Your task to perform on an android device: find which apps use the phone's location Image 0: 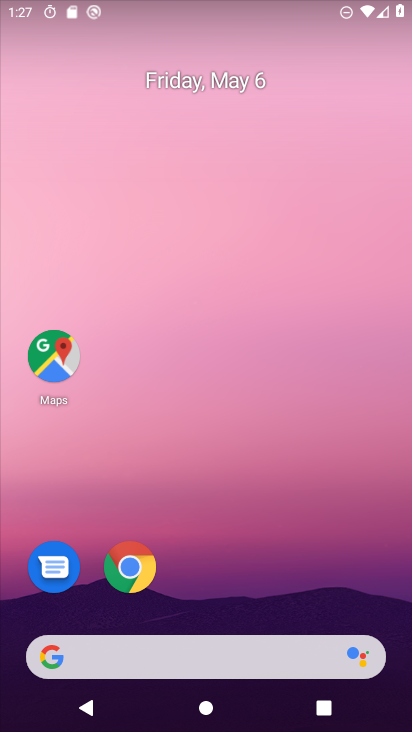
Step 0: drag from (332, 690) to (302, 177)
Your task to perform on an android device: find which apps use the phone's location Image 1: 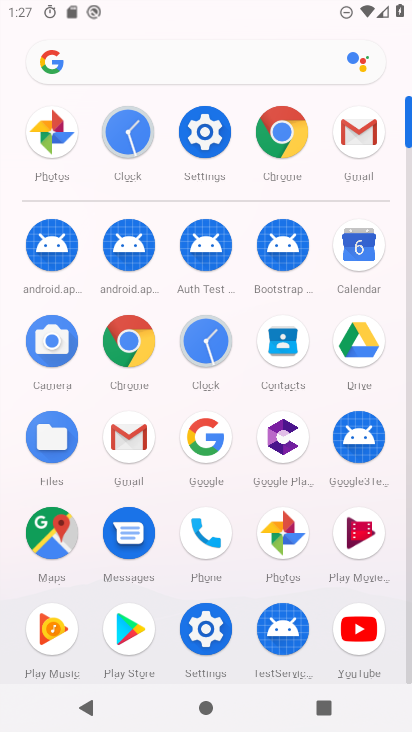
Step 1: click (193, 152)
Your task to perform on an android device: find which apps use the phone's location Image 2: 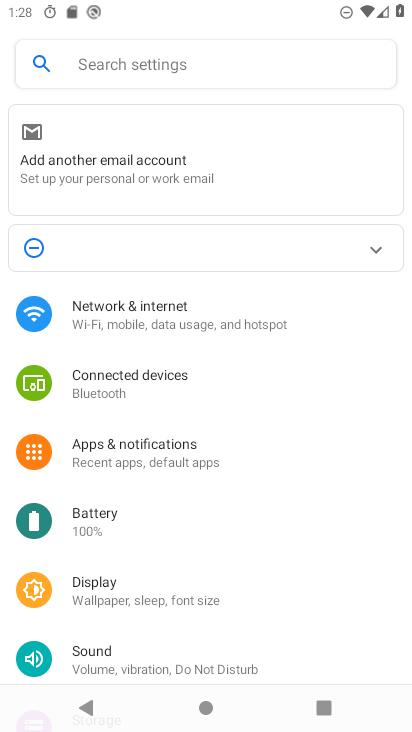
Step 2: click (152, 63)
Your task to perform on an android device: find which apps use the phone's location Image 3: 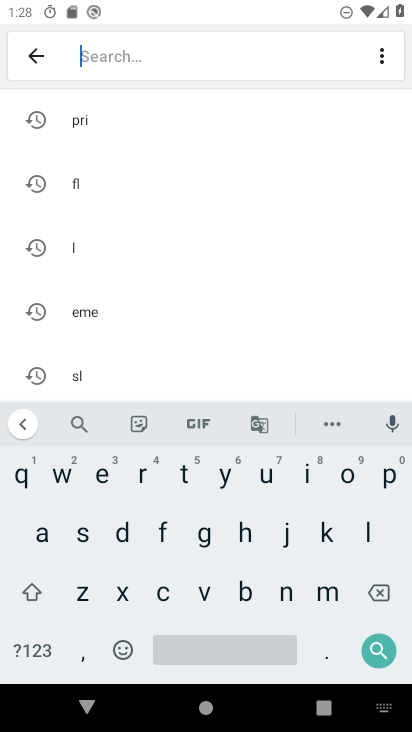
Step 3: click (370, 537)
Your task to perform on an android device: find which apps use the phone's location Image 4: 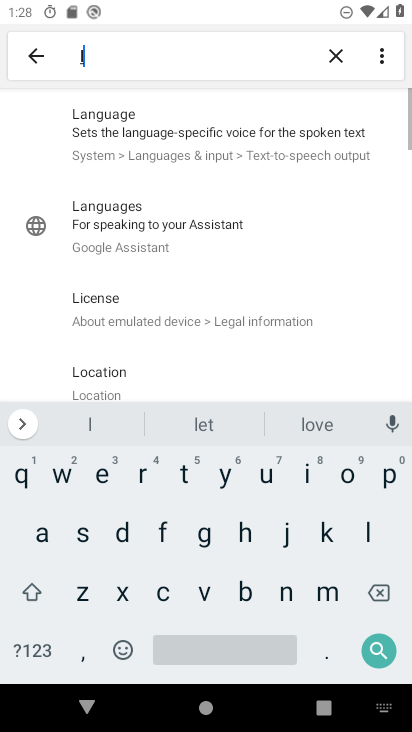
Step 4: click (342, 477)
Your task to perform on an android device: find which apps use the phone's location Image 5: 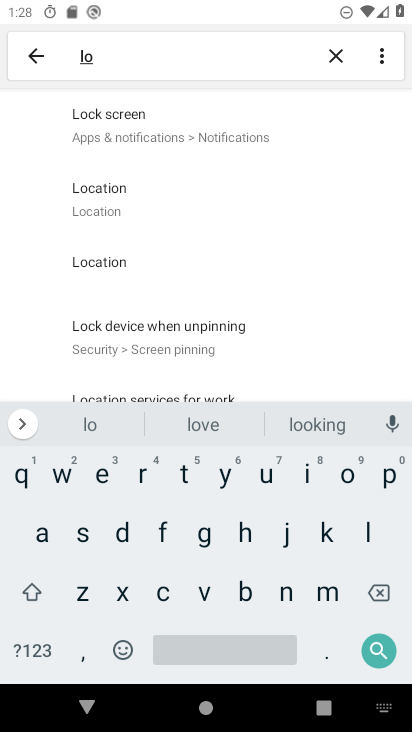
Step 5: click (160, 201)
Your task to perform on an android device: find which apps use the phone's location Image 6: 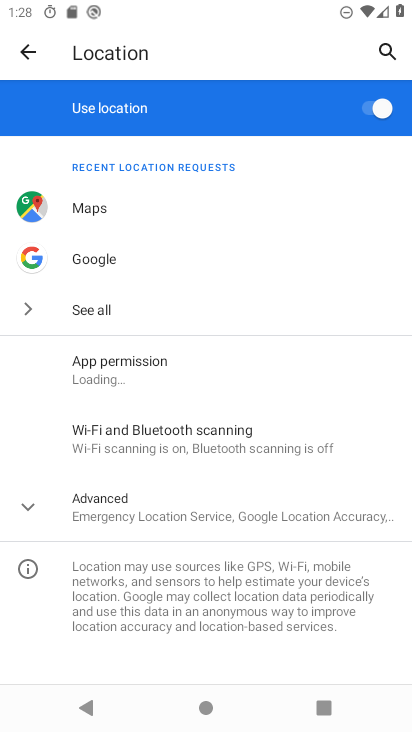
Step 6: task complete